Your task to perform on an android device: add a contact Image 0: 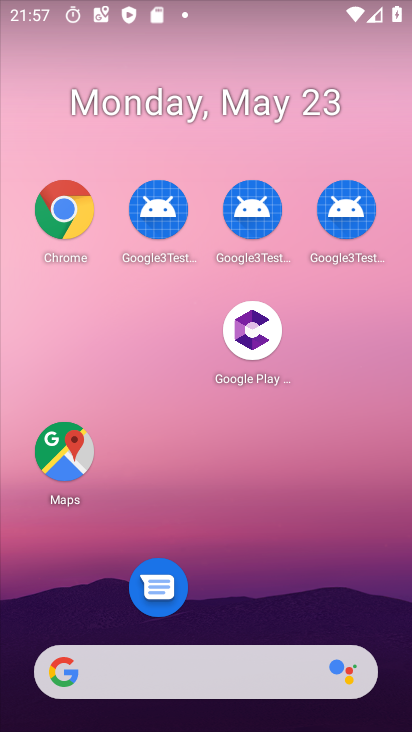
Step 0: drag from (281, 608) to (328, 0)
Your task to perform on an android device: add a contact Image 1: 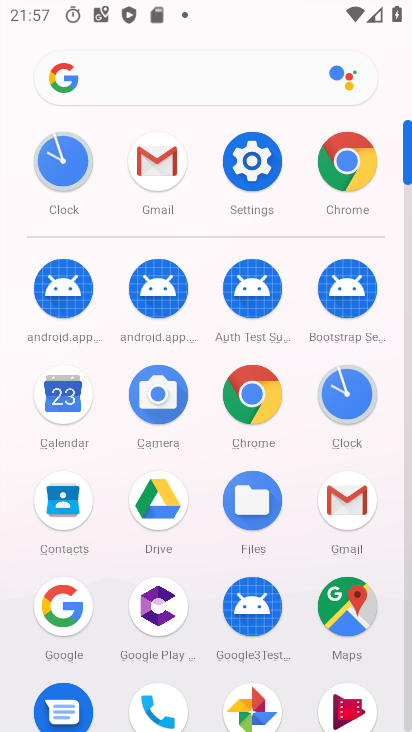
Step 1: click (56, 496)
Your task to perform on an android device: add a contact Image 2: 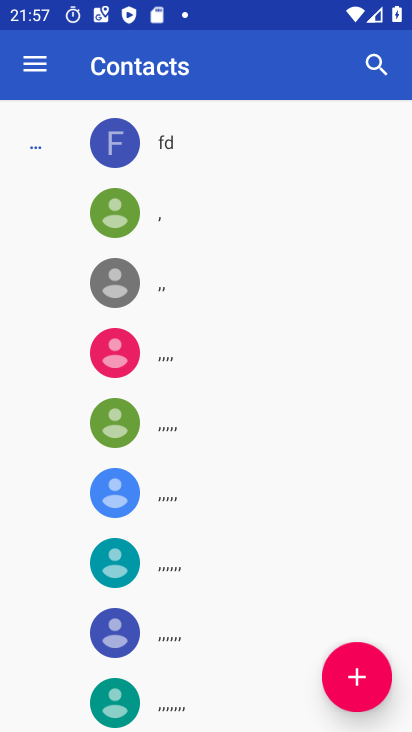
Step 2: click (345, 668)
Your task to perform on an android device: add a contact Image 3: 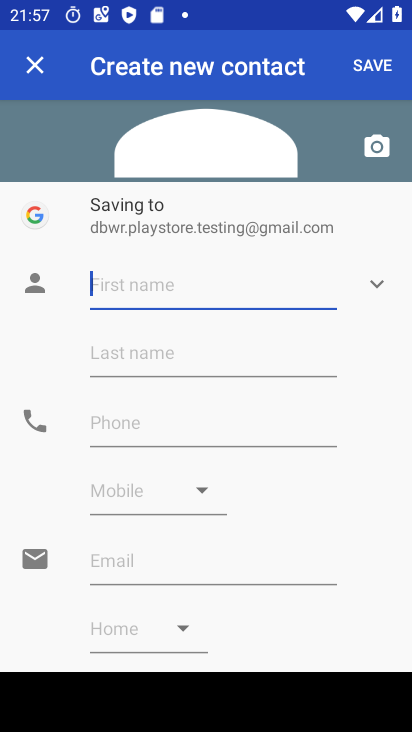
Step 3: click (143, 277)
Your task to perform on an android device: add a contact Image 4: 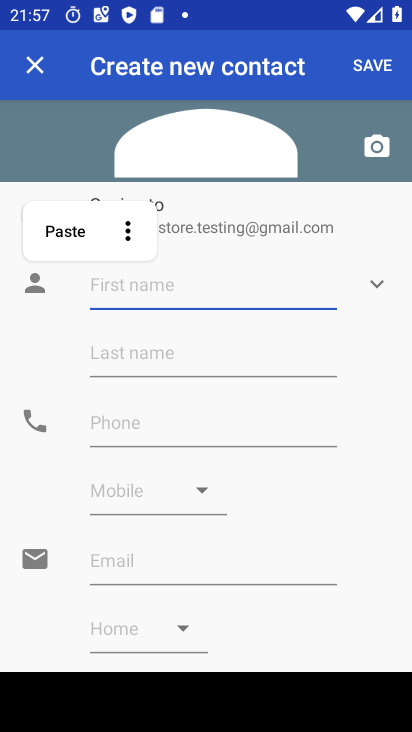
Step 4: type "ugshjhg"
Your task to perform on an android device: add a contact Image 5: 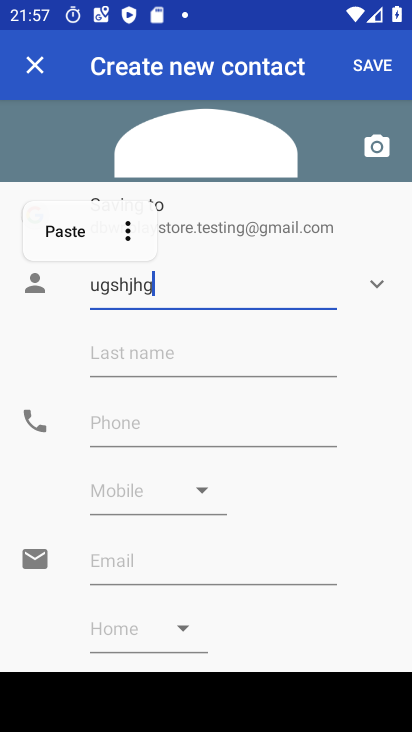
Step 5: type ""
Your task to perform on an android device: add a contact Image 6: 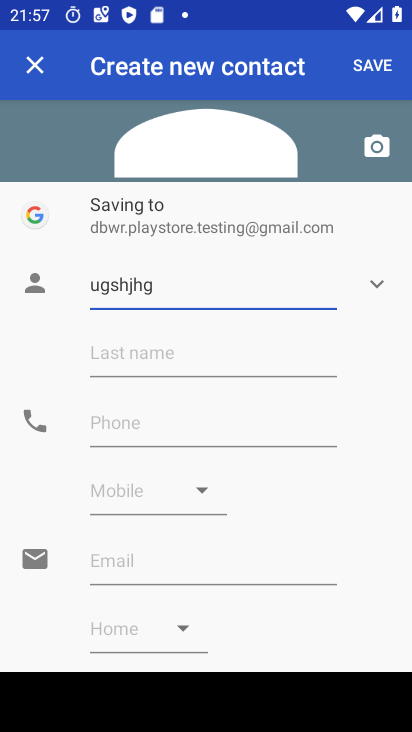
Step 6: click (130, 419)
Your task to perform on an android device: add a contact Image 7: 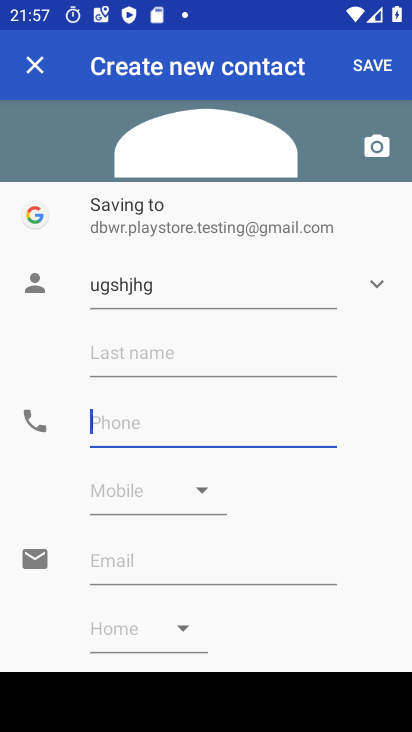
Step 7: type "7398173098"
Your task to perform on an android device: add a contact Image 8: 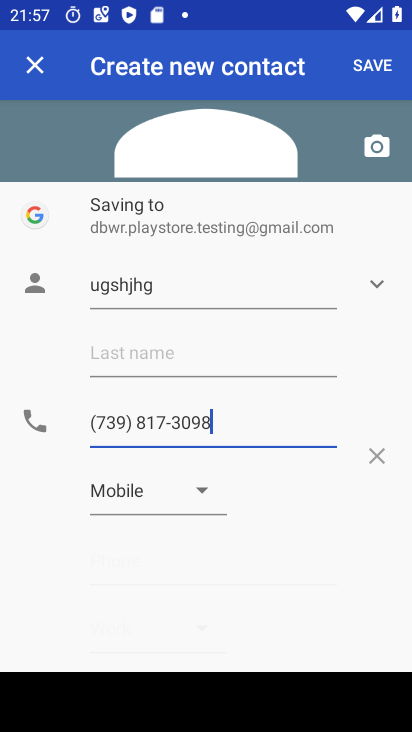
Step 8: type ""
Your task to perform on an android device: add a contact Image 9: 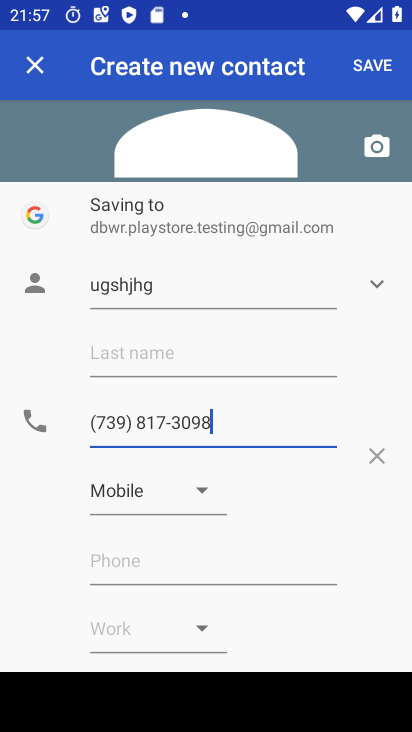
Step 9: click (385, 55)
Your task to perform on an android device: add a contact Image 10: 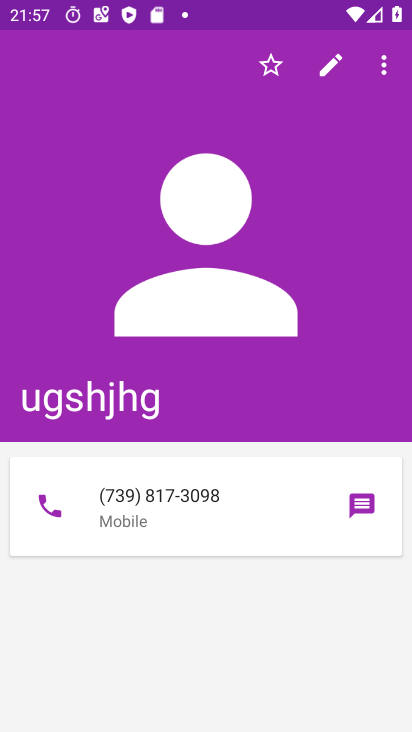
Step 10: task complete